Your task to perform on an android device: visit the assistant section in the google photos Image 0: 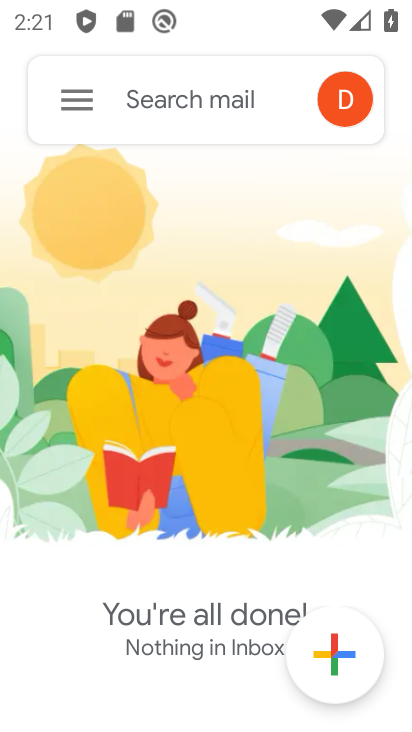
Step 0: press home button
Your task to perform on an android device: visit the assistant section in the google photos Image 1: 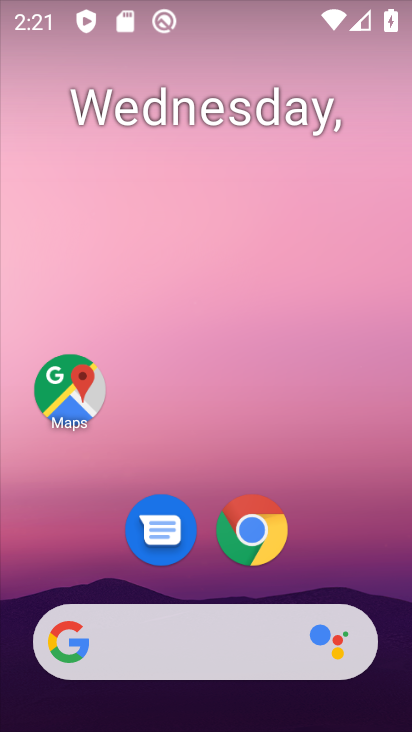
Step 1: drag from (167, 654) to (162, 174)
Your task to perform on an android device: visit the assistant section in the google photos Image 2: 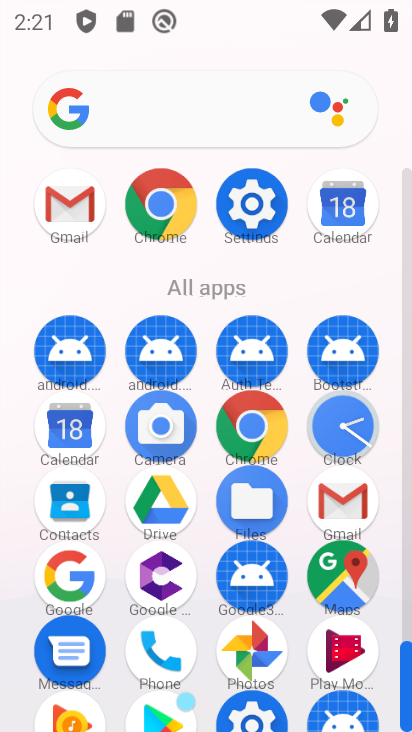
Step 2: click (239, 639)
Your task to perform on an android device: visit the assistant section in the google photos Image 3: 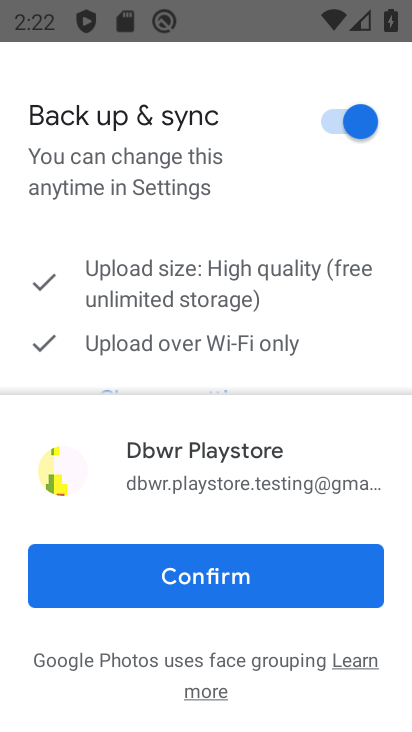
Step 3: click (299, 570)
Your task to perform on an android device: visit the assistant section in the google photos Image 4: 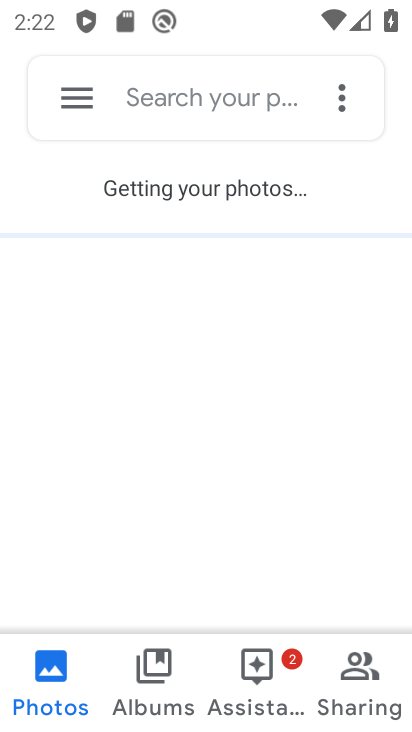
Step 4: click (244, 690)
Your task to perform on an android device: visit the assistant section in the google photos Image 5: 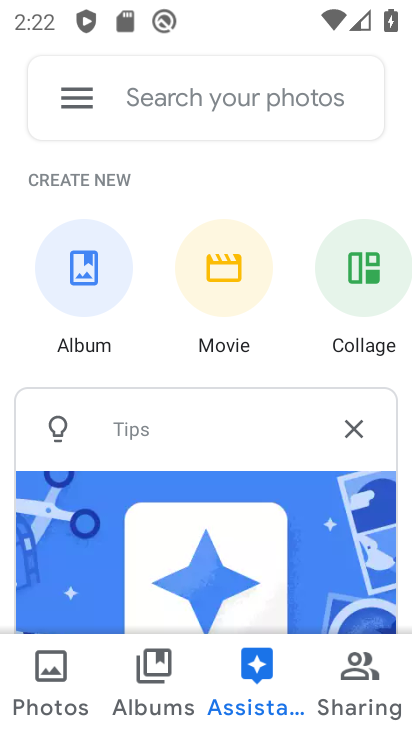
Step 5: task complete